Your task to perform on an android device: toggle wifi Image 0: 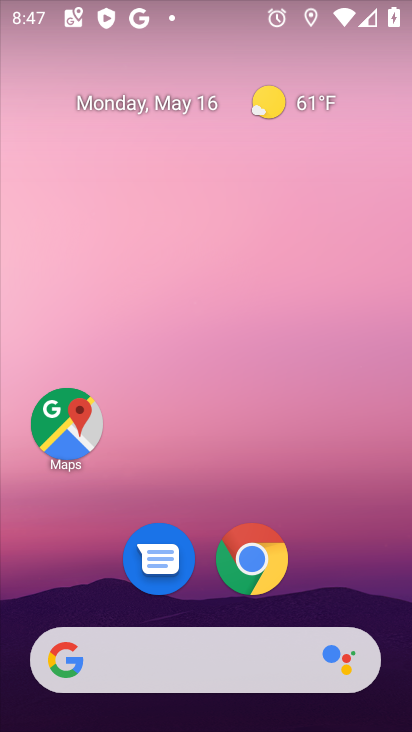
Step 0: drag from (366, 584) to (374, 99)
Your task to perform on an android device: toggle wifi Image 1: 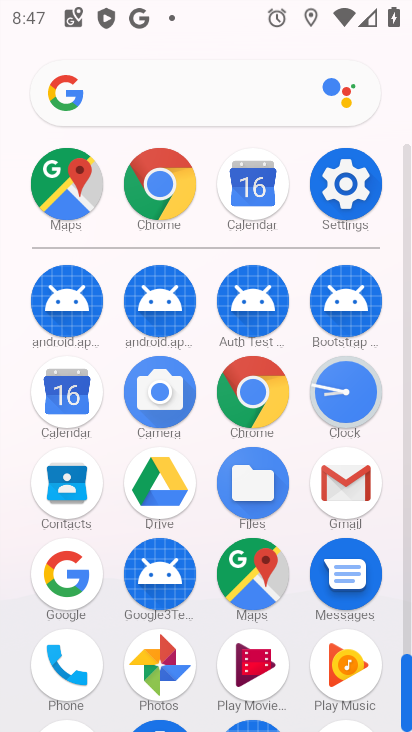
Step 1: click (368, 187)
Your task to perform on an android device: toggle wifi Image 2: 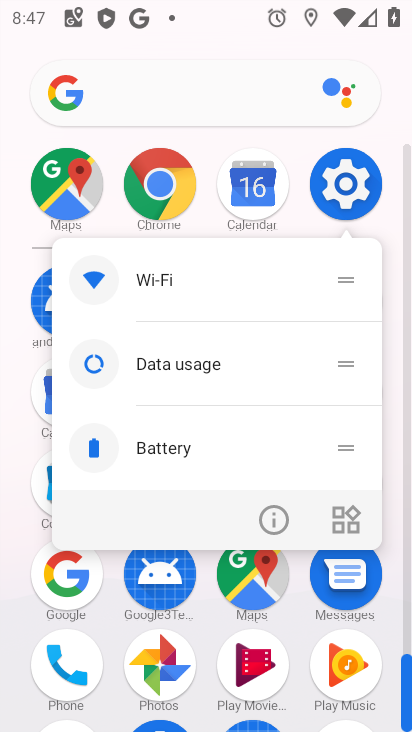
Step 2: click (358, 193)
Your task to perform on an android device: toggle wifi Image 3: 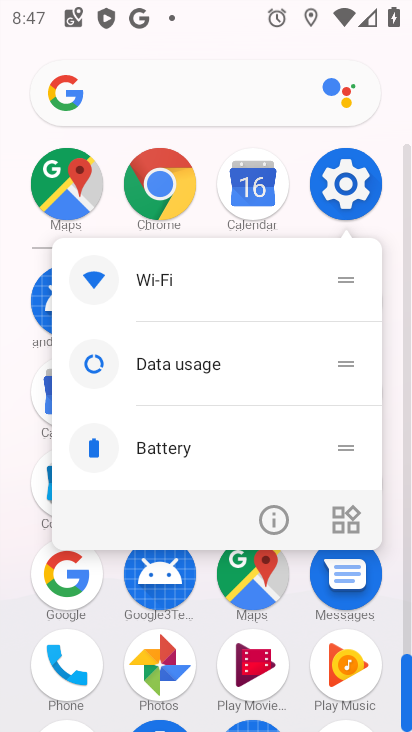
Step 3: click (331, 210)
Your task to perform on an android device: toggle wifi Image 4: 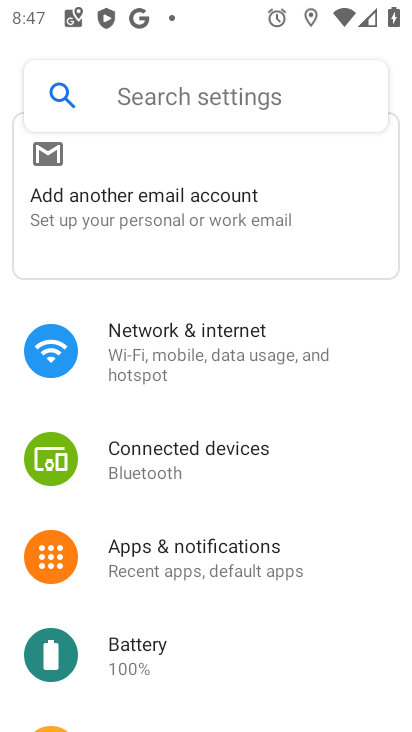
Step 4: click (274, 355)
Your task to perform on an android device: toggle wifi Image 5: 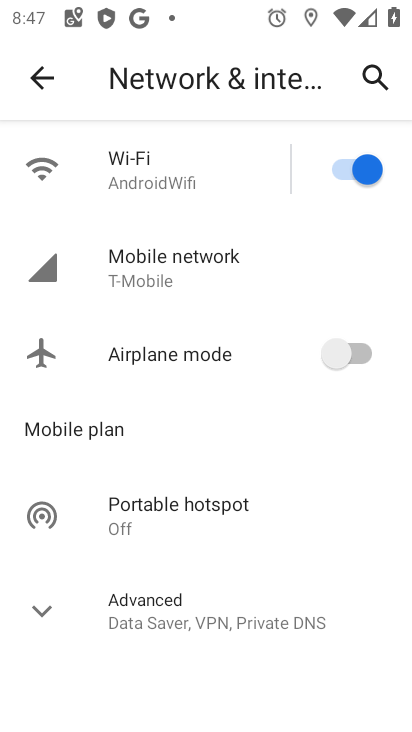
Step 5: click (186, 178)
Your task to perform on an android device: toggle wifi Image 6: 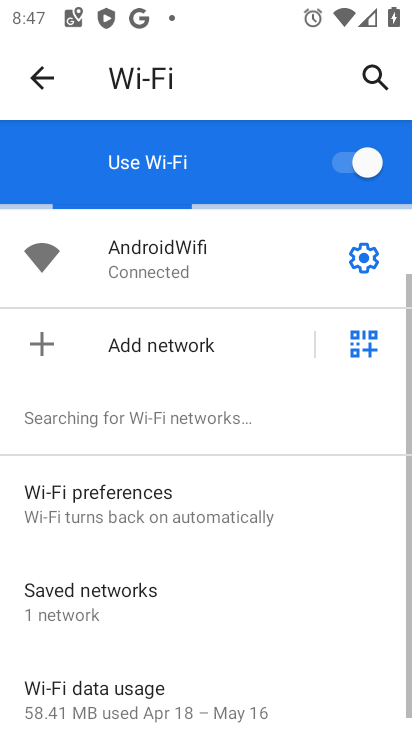
Step 6: click (351, 157)
Your task to perform on an android device: toggle wifi Image 7: 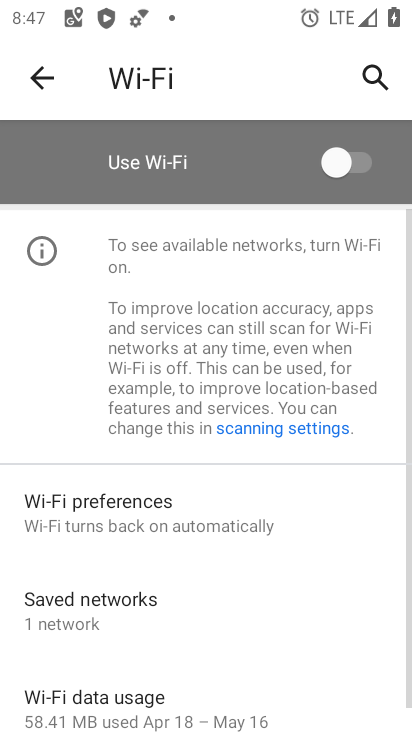
Step 7: task complete